Your task to perform on an android device: open app "Gmail" (install if not already installed) Image 0: 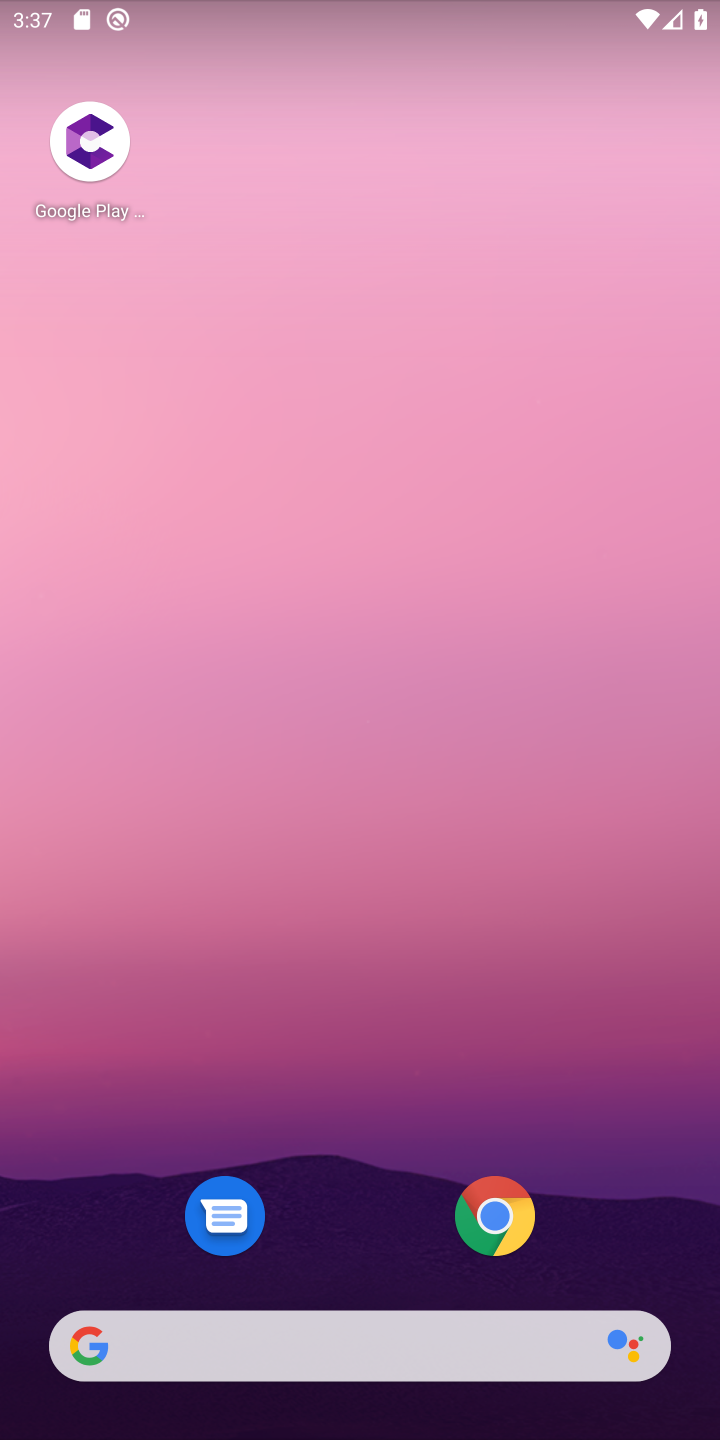
Step 0: drag from (357, 1253) to (411, 21)
Your task to perform on an android device: open app "Gmail" (install if not already installed) Image 1: 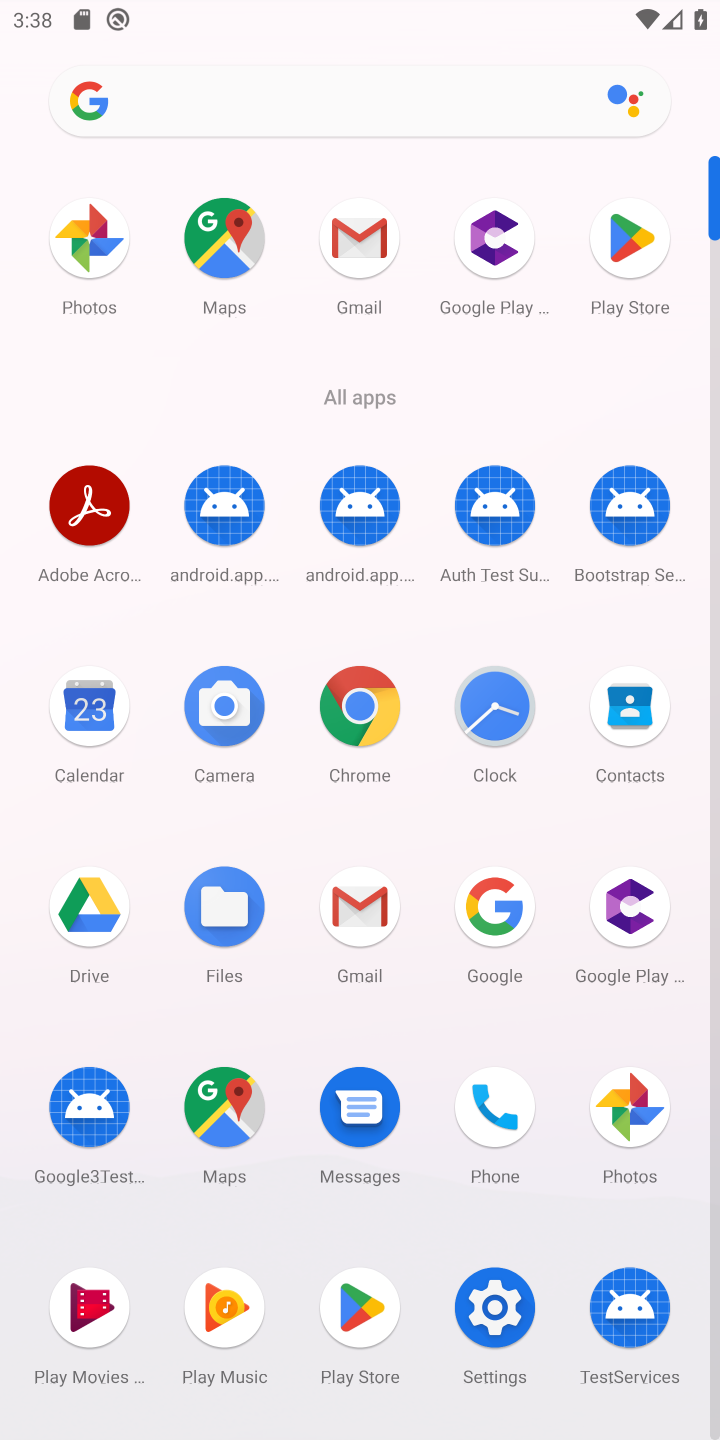
Step 1: click (333, 1327)
Your task to perform on an android device: open app "Gmail" (install if not already installed) Image 2: 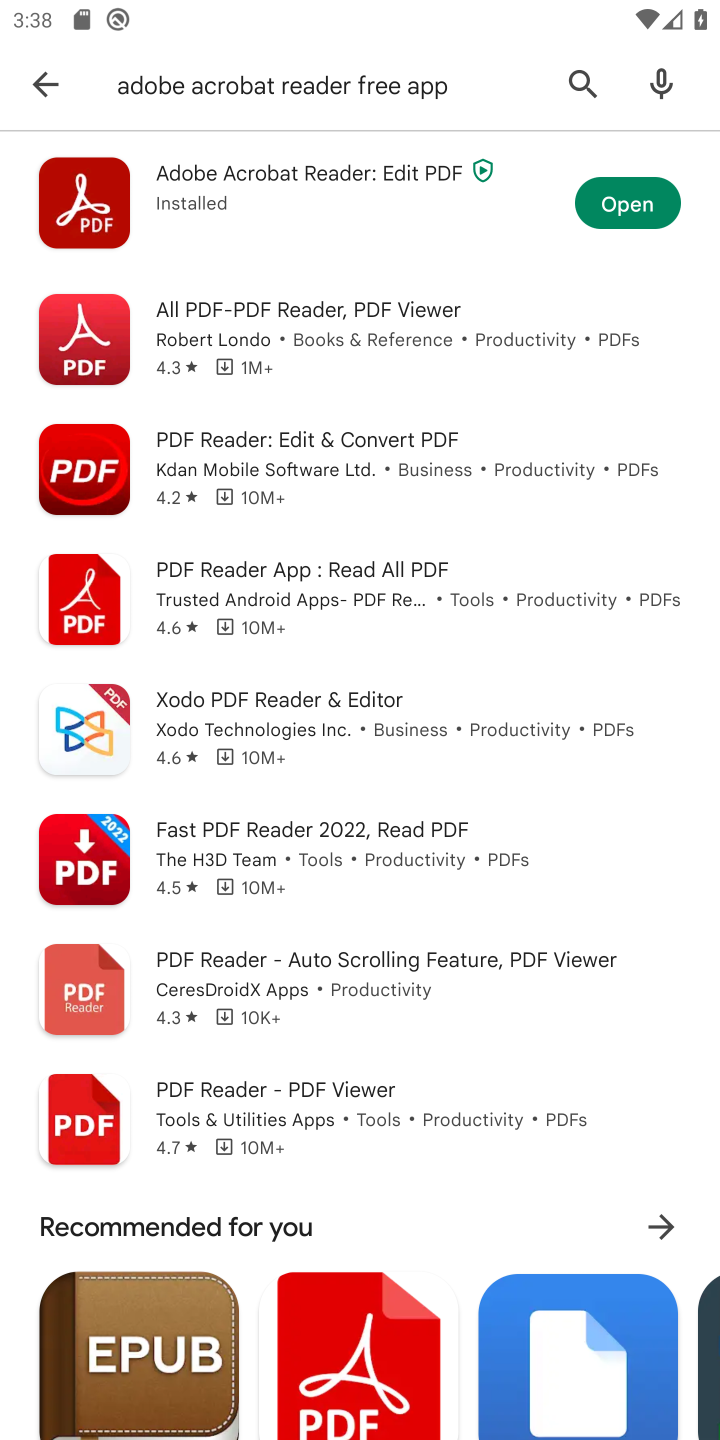
Step 2: click (312, 98)
Your task to perform on an android device: open app "Gmail" (install if not already installed) Image 3: 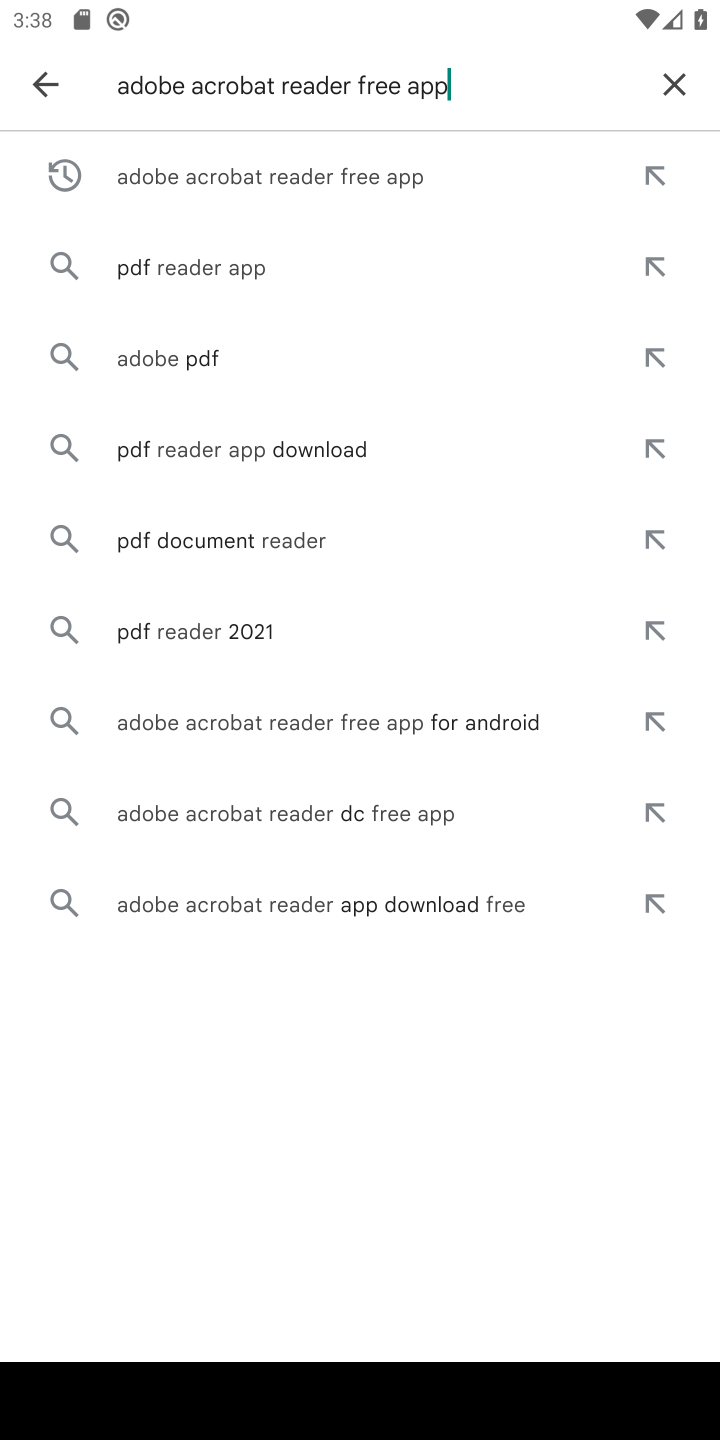
Step 3: click (666, 82)
Your task to perform on an android device: open app "Gmail" (install if not already installed) Image 4: 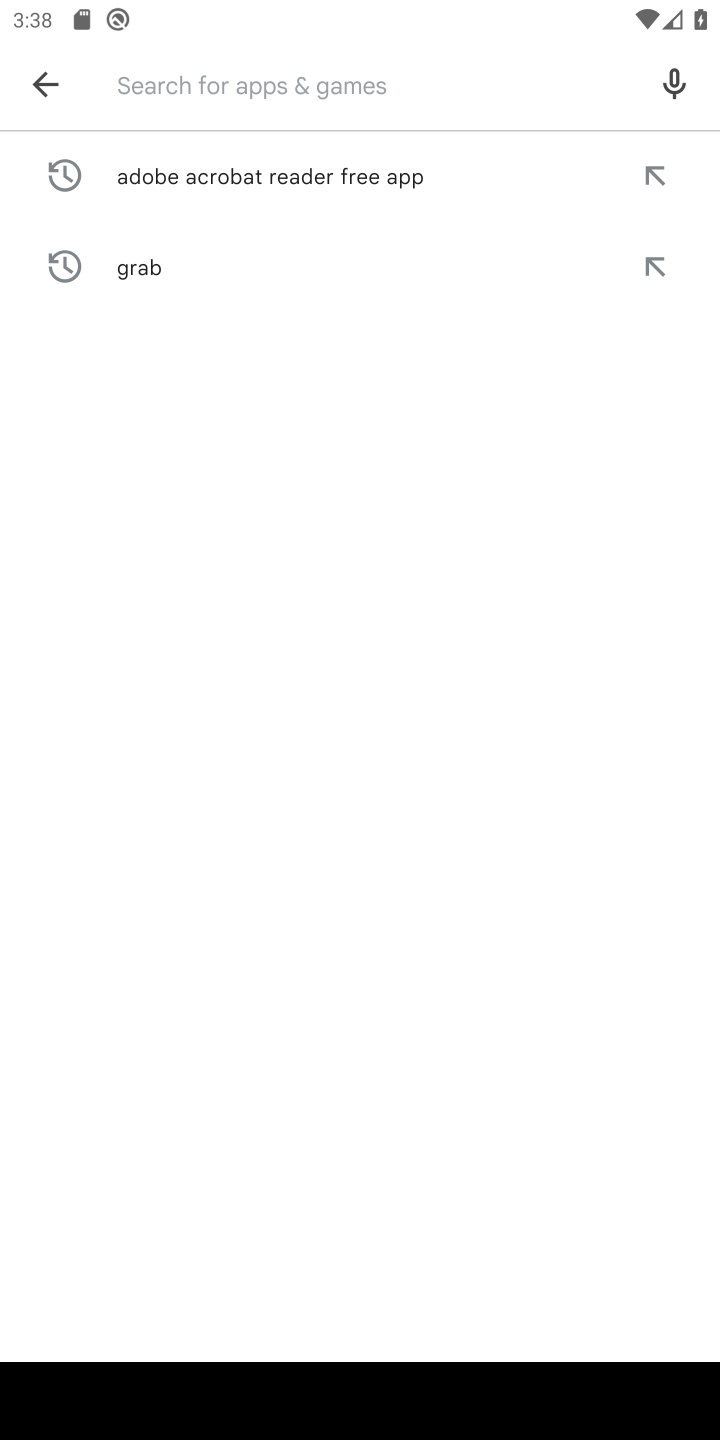
Step 4: type "gmail"
Your task to perform on an android device: open app "Gmail" (install if not already installed) Image 5: 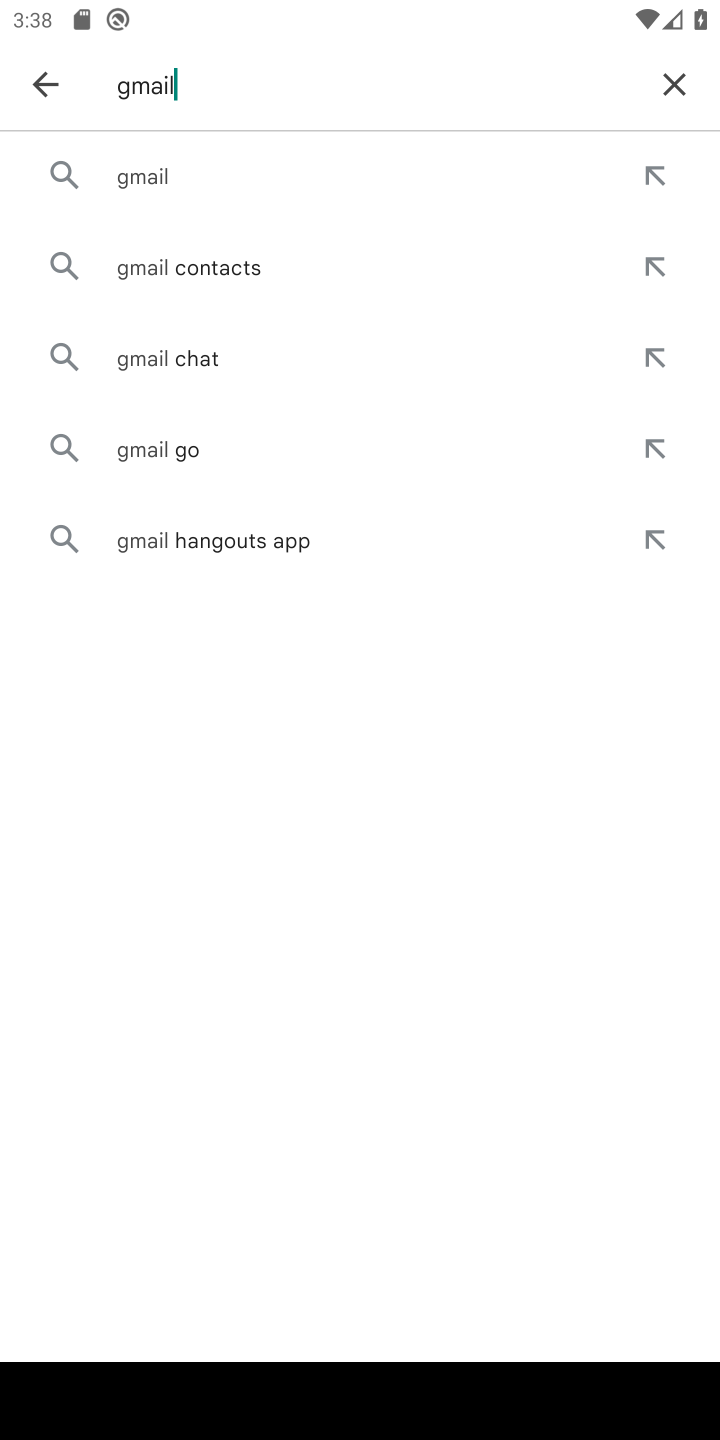
Step 5: click (165, 184)
Your task to perform on an android device: open app "Gmail" (install if not already installed) Image 6: 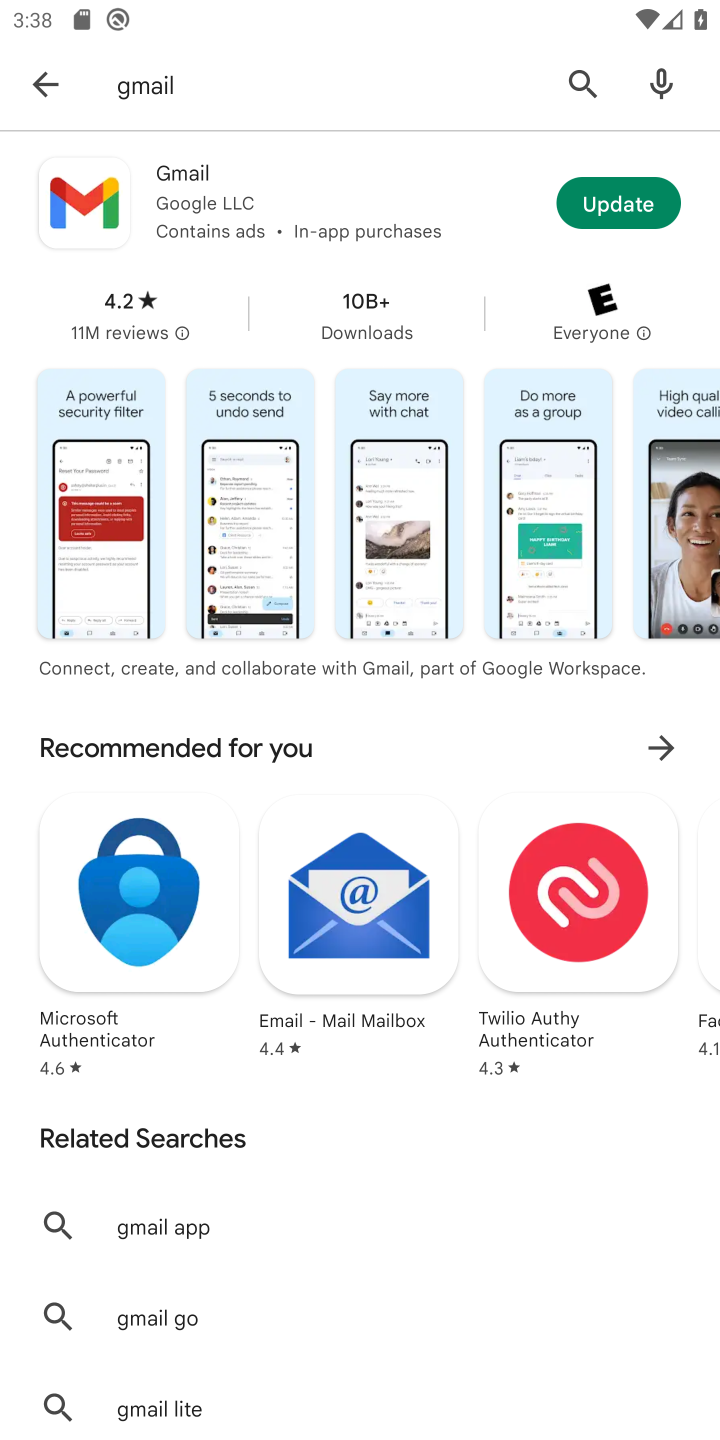
Step 6: click (631, 193)
Your task to perform on an android device: open app "Gmail" (install if not already installed) Image 7: 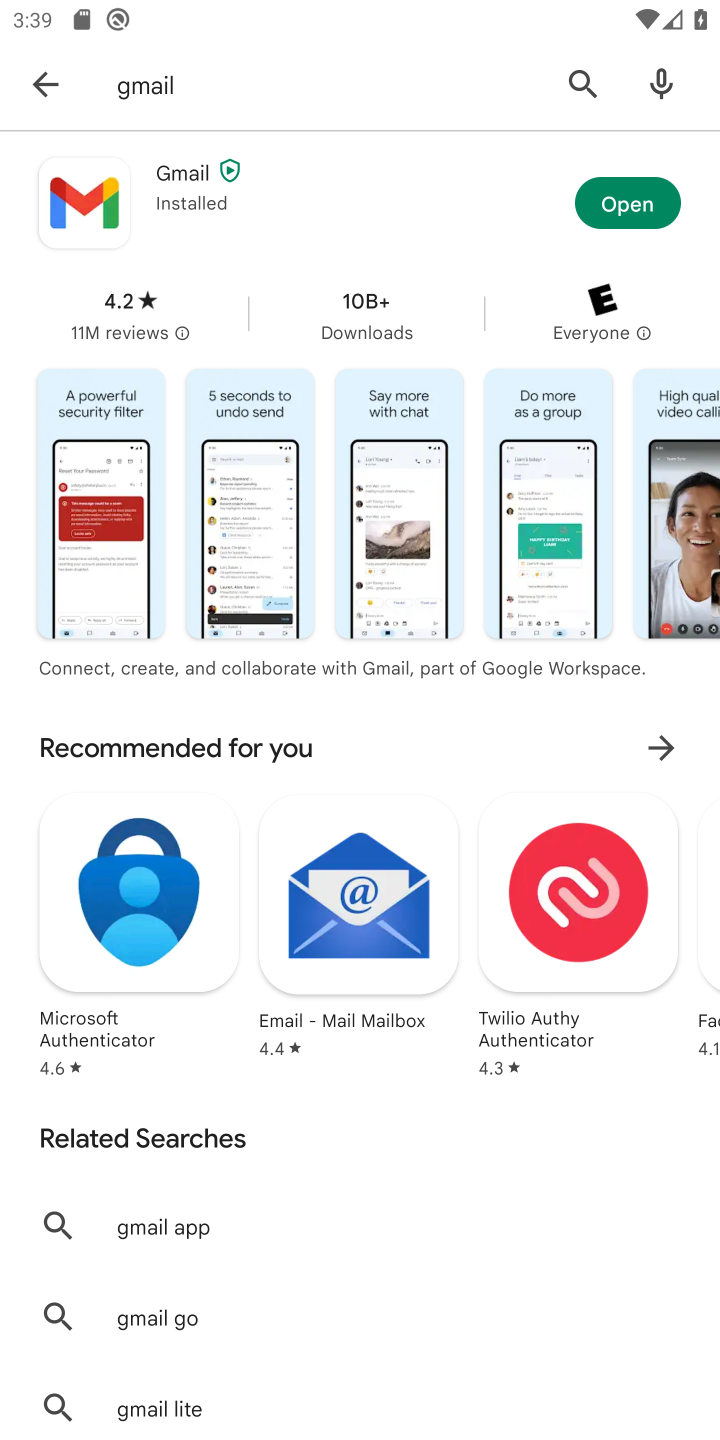
Step 7: click (660, 186)
Your task to perform on an android device: open app "Gmail" (install if not already installed) Image 8: 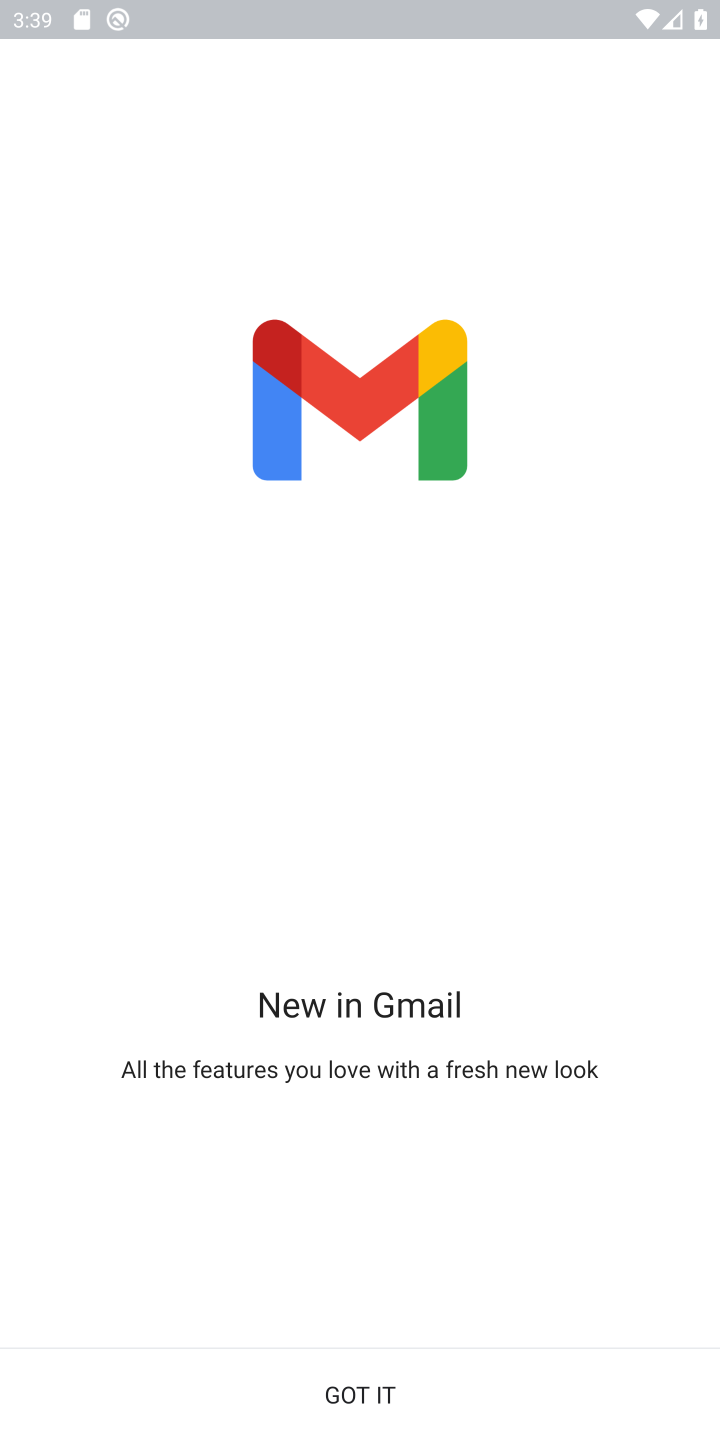
Step 8: click (394, 1380)
Your task to perform on an android device: open app "Gmail" (install if not already installed) Image 9: 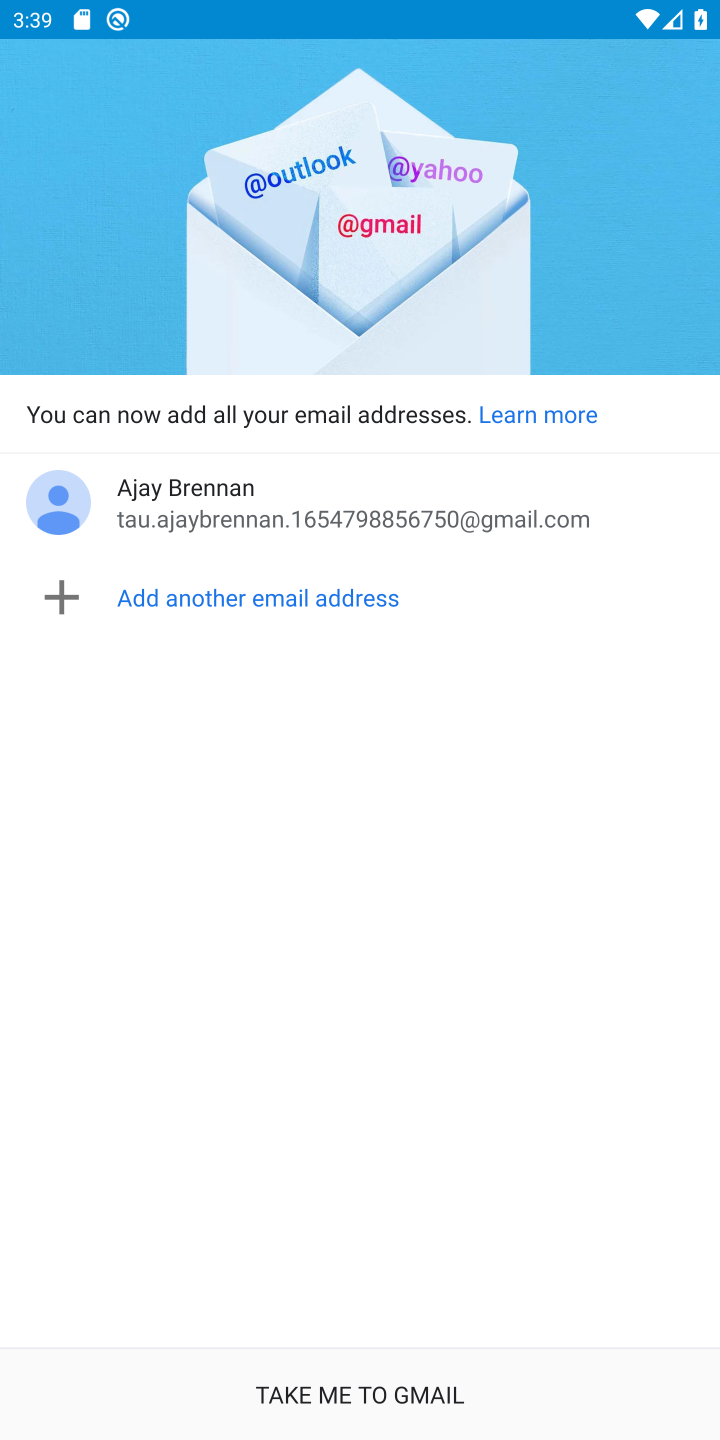
Step 9: click (392, 1390)
Your task to perform on an android device: open app "Gmail" (install if not already installed) Image 10: 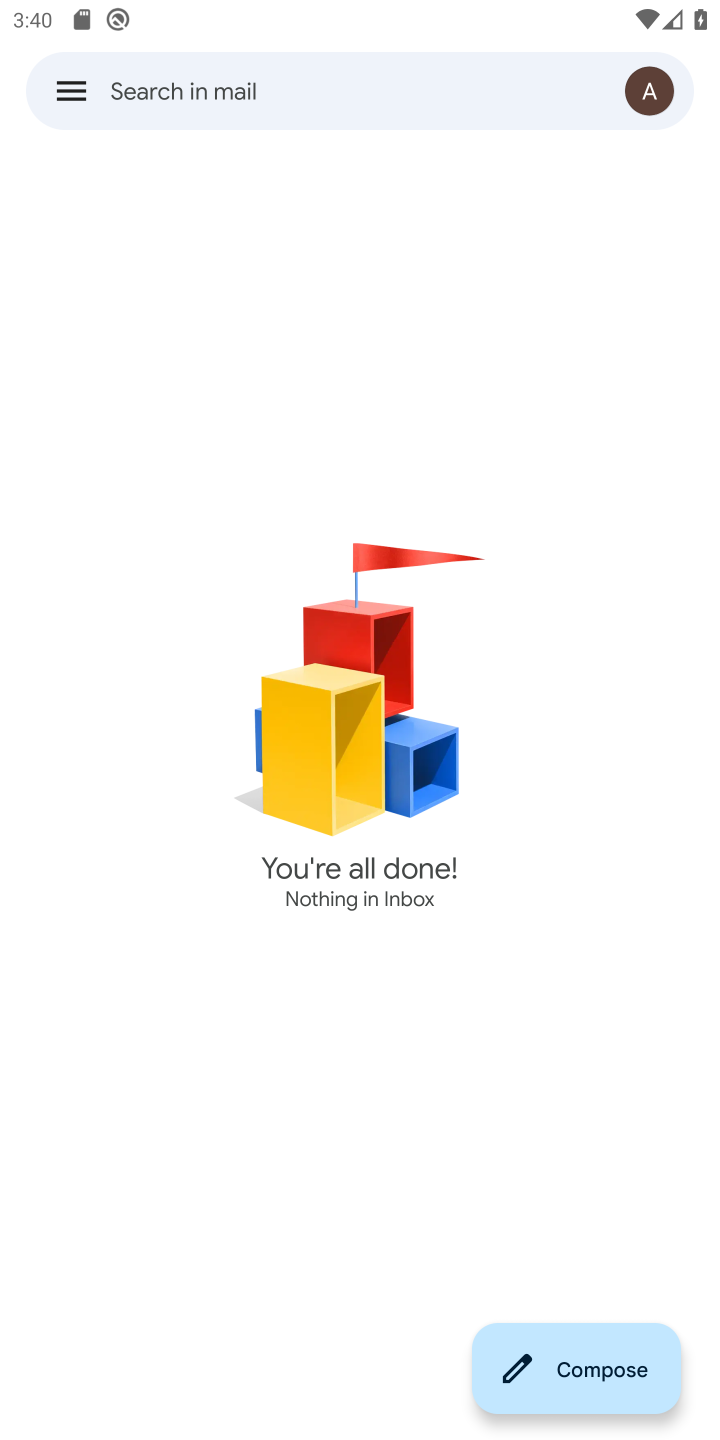
Step 10: task complete